Your task to perform on an android device: Go to ESPN.com Image 0: 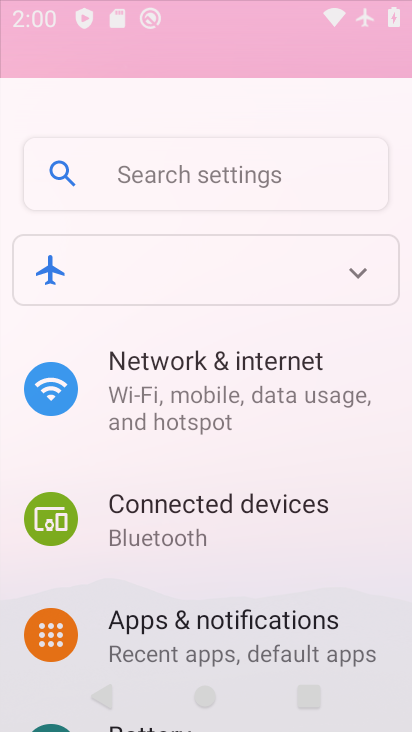
Step 0: click (319, 50)
Your task to perform on an android device: Go to ESPN.com Image 1: 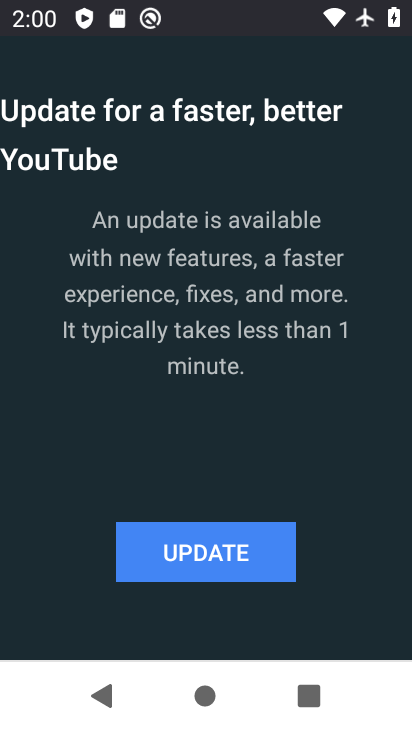
Step 1: press home button
Your task to perform on an android device: Go to ESPN.com Image 2: 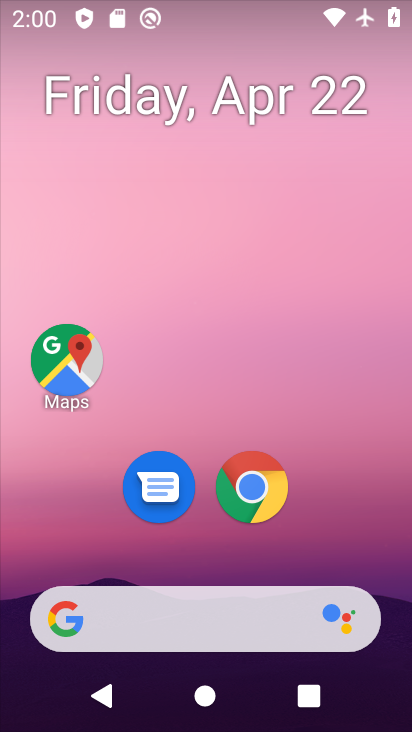
Step 2: drag from (157, 627) to (297, 120)
Your task to perform on an android device: Go to ESPN.com Image 3: 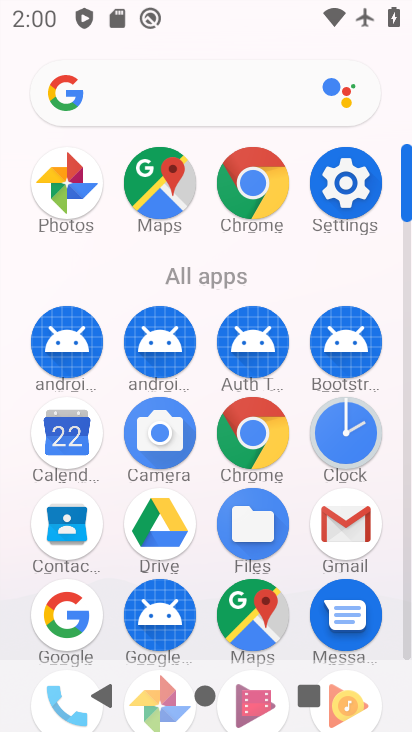
Step 3: click (248, 203)
Your task to perform on an android device: Go to ESPN.com Image 4: 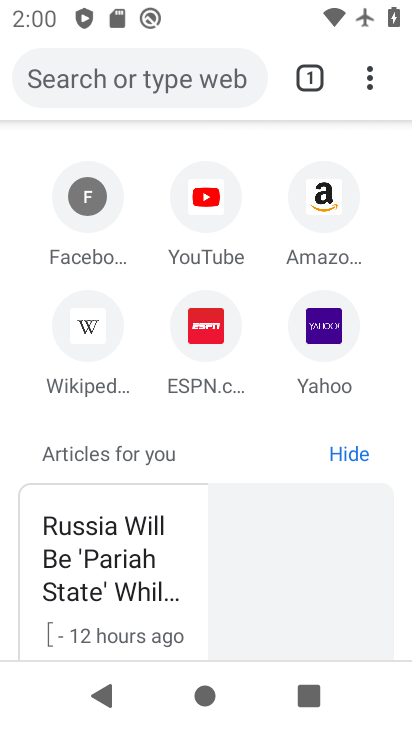
Step 4: click (207, 340)
Your task to perform on an android device: Go to ESPN.com Image 5: 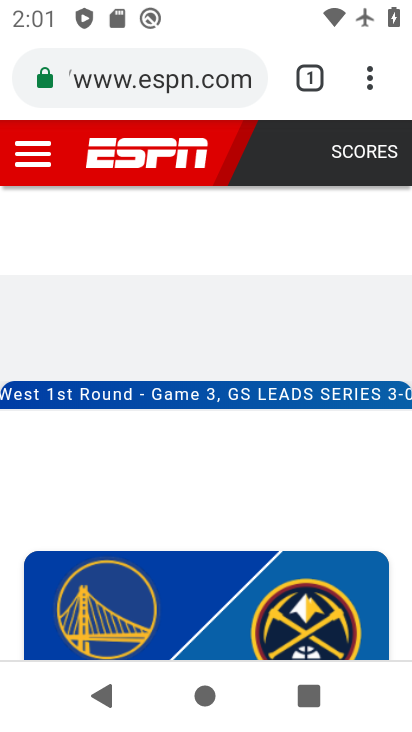
Step 5: task complete